Your task to perform on an android device: find photos in the google photos app Image 0: 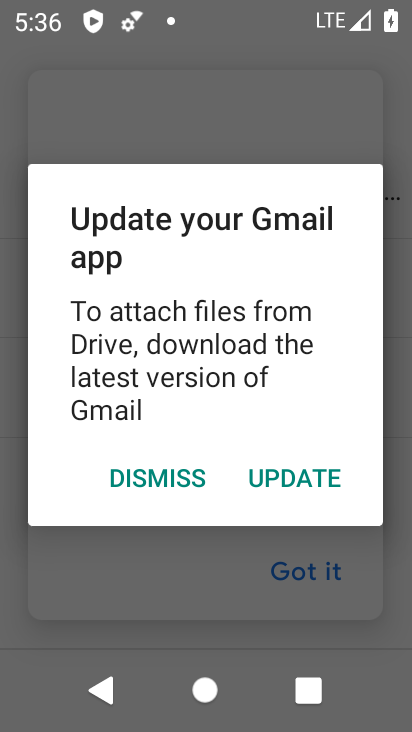
Step 0: press home button
Your task to perform on an android device: find photos in the google photos app Image 1: 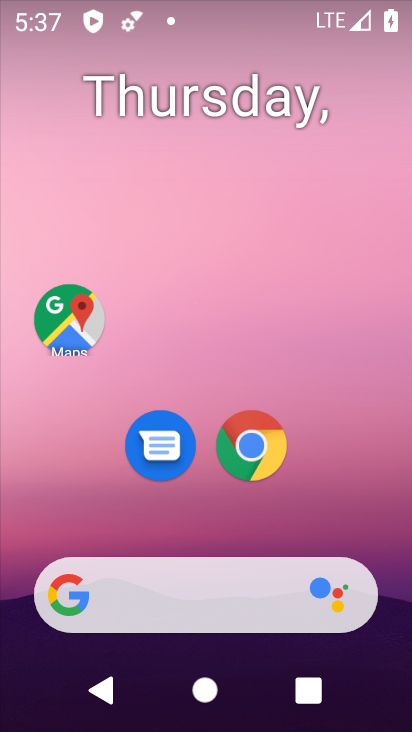
Step 1: drag from (306, 382) to (302, 117)
Your task to perform on an android device: find photos in the google photos app Image 2: 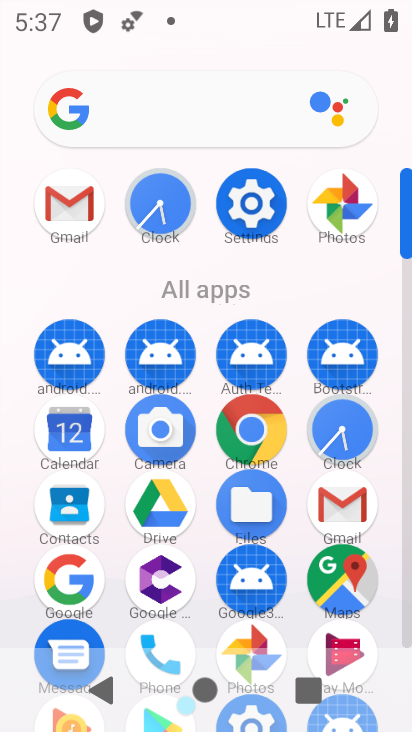
Step 2: click (330, 211)
Your task to perform on an android device: find photos in the google photos app Image 3: 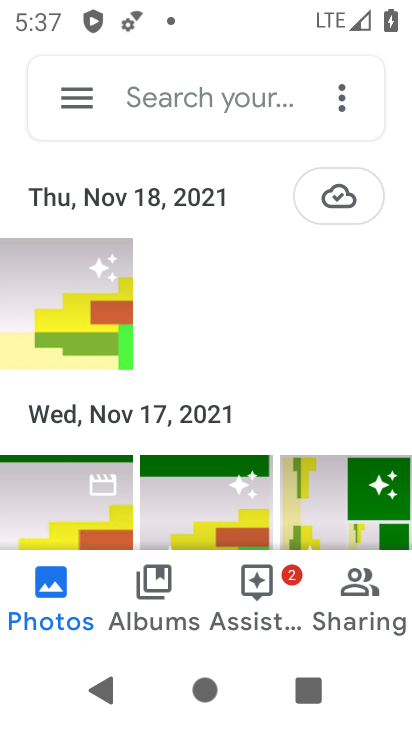
Step 3: click (35, 587)
Your task to perform on an android device: find photos in the google photos app Image 4: 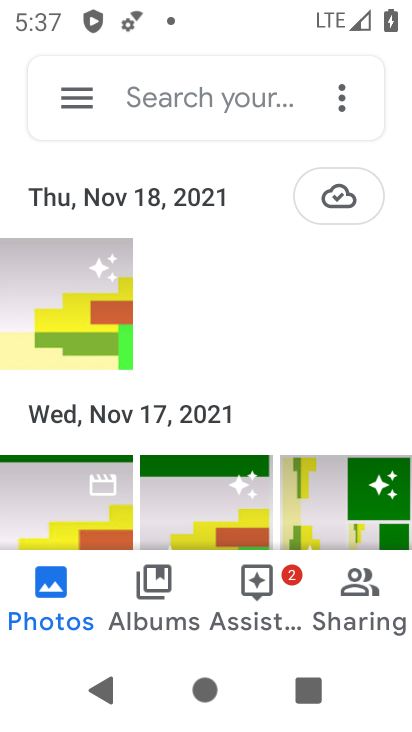
Step 4: task complete